Your task to perform on an android device: empty trash in the gmail app Image 0: 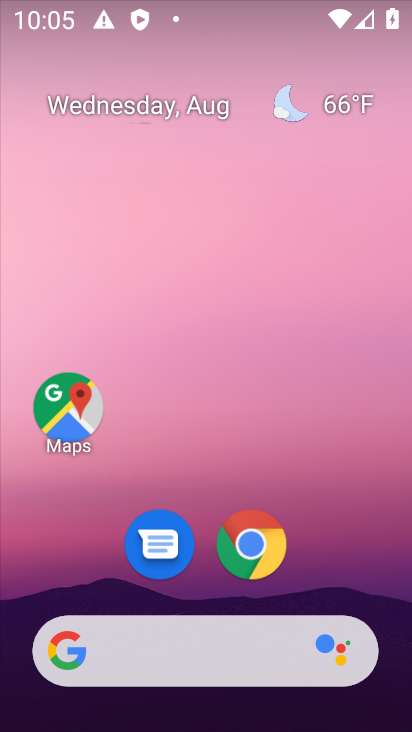
Step 0: drag from (173, 439) to (245, 163)
Your task to perform on an android device: empty trash in the gmail app Image 1: 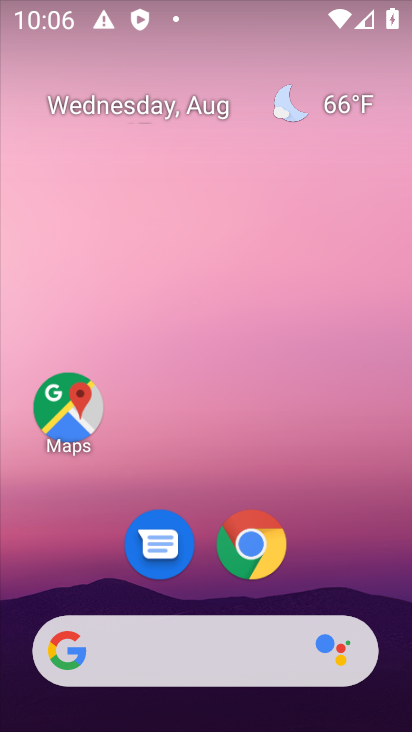
Step 1: task complete